Your task to perform on an android device: Go to Maps Image 0: 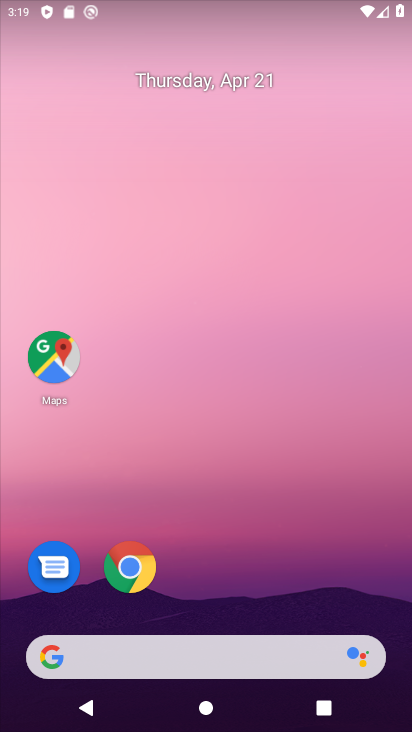
Step 0: click (218, 22)
Your task to perform on an android device: Go to Maps Image 1: 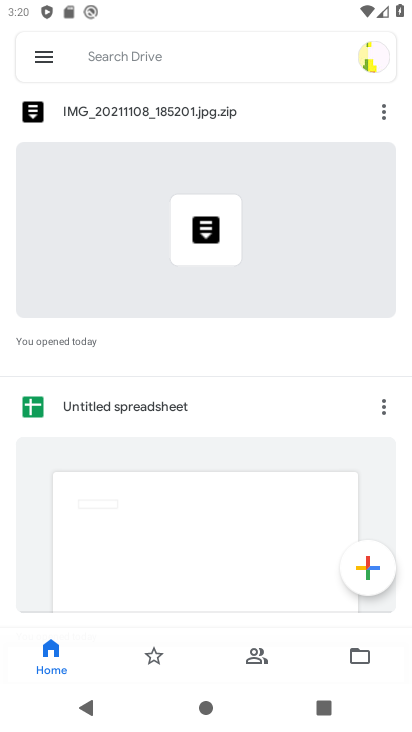
Step 1: press home button
Your task to perform on an android device: Go to Maps Image 2: 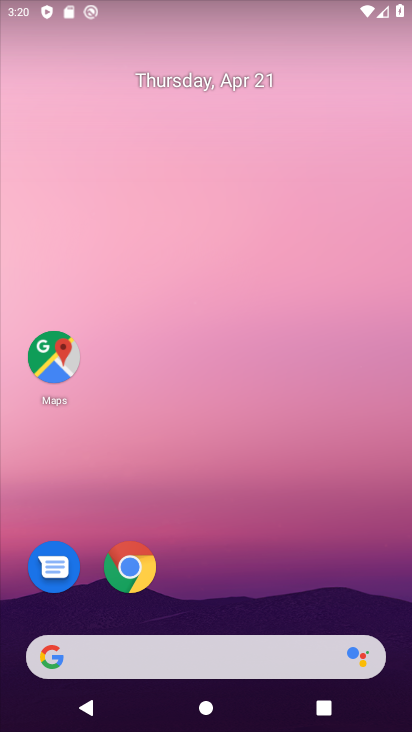
Step 2: click (54, 353)
Your task to perform on an android device: Go to Maps Image 3: 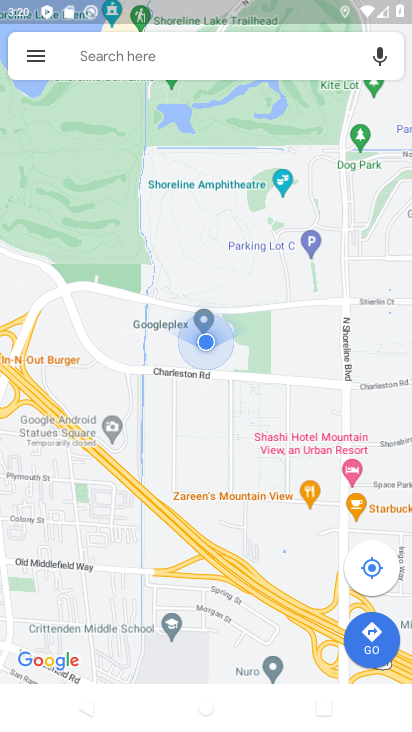
Step 3: click (29, 51)
Your task to perform on an android device: Go to Maps Image 4: 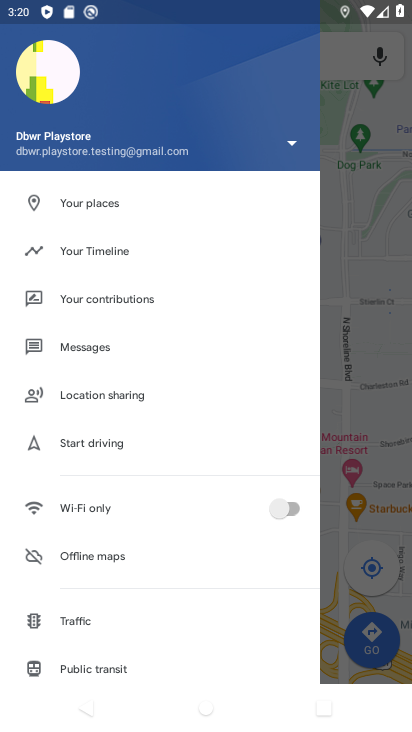
Step 4: click (367, 425)
Your task to perform on an android device: Go to Maps Image 5: 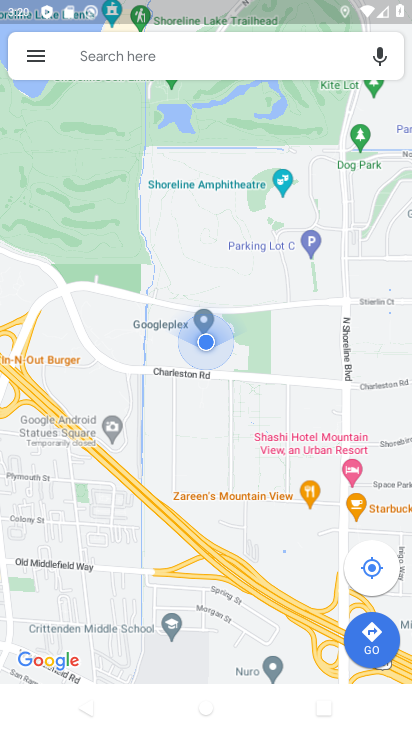
Step 5: task complete